Your task to perform on an android device: Go to network settings Image 0: 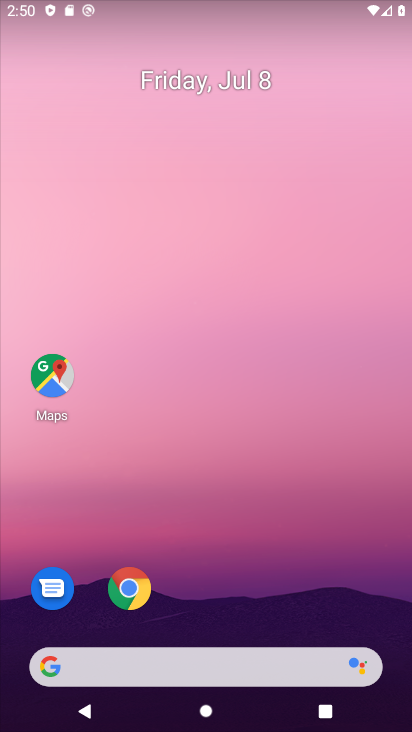
Step 0: drag from (238, 673) to (321, 132)
Your task to perform on an android device: Go to network settings Image 1: 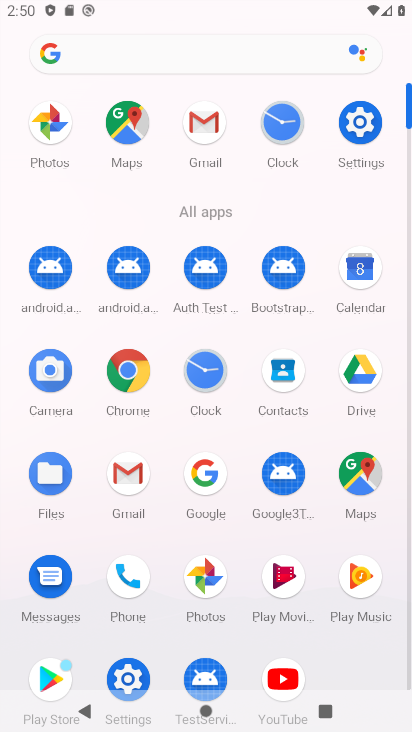
Step 1: click (364, 129)
Your task to perform on an android device: Go to network settings Image 2: 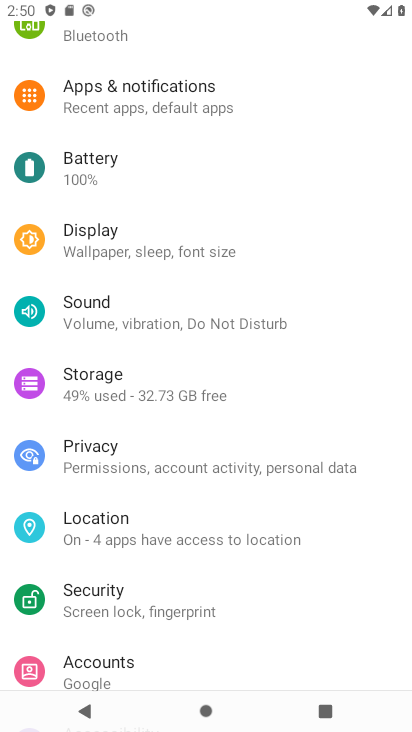
Step 2: drag from (275, 100) to (172, 534)
Your task to perform on an android device: Go to network settings Image 3: 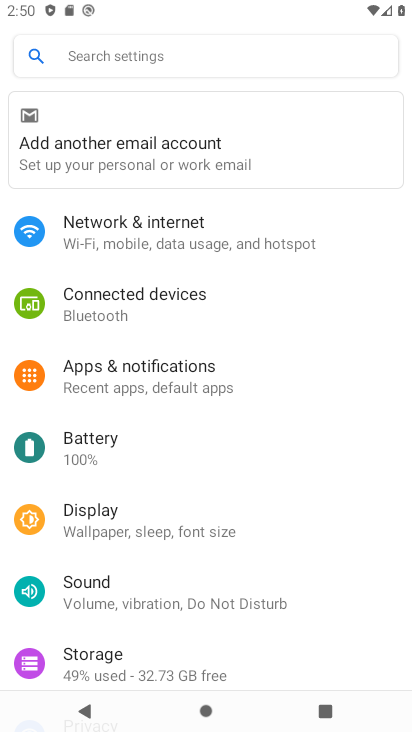
Step 3: click (167, 235)
Your task to perform on an android device: Go to network settings Image 4: 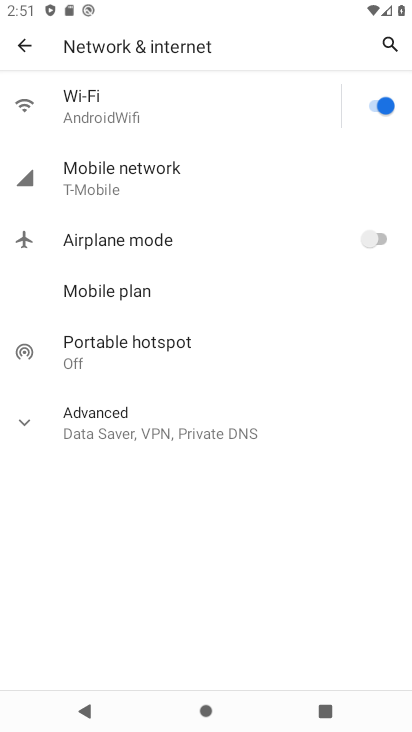
Step 4: click (158, 174)
Your task to perform on an android device: Go to network settings Image 5: 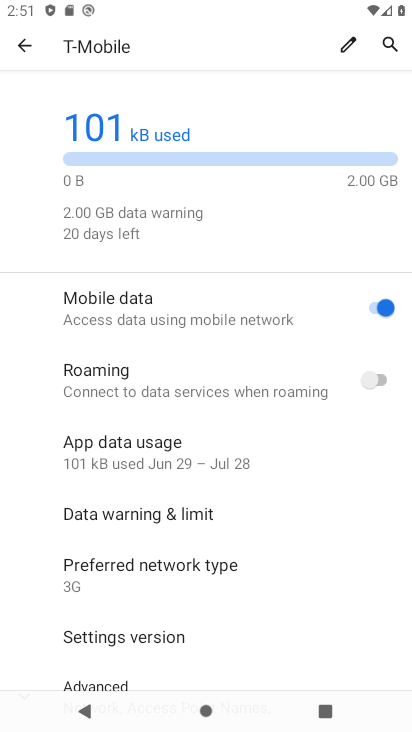
Step 5: task complete